Your task to perform on an android device: Search for the best rated lawnmower on Lowes.com Image 0: 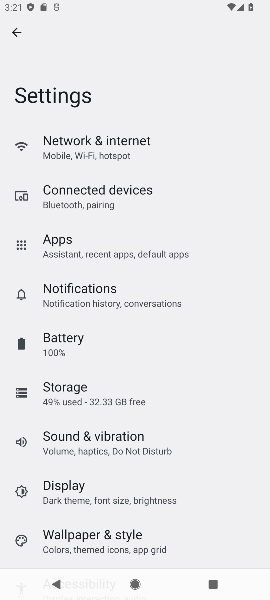
Step 0: press home button
Your task to perform on an android device: Search for the best rated lawnmower on Lowes.com Image 1: 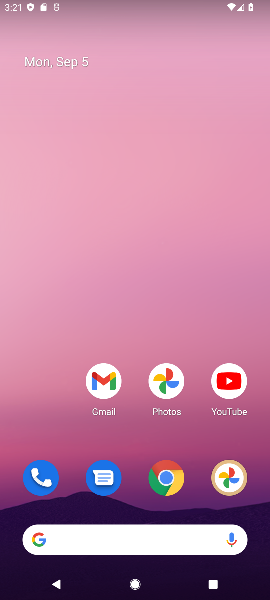
Step 1: click (165, 483)
Your task to perform on an android device: Search for the best rated lawnmower on Lowes.com Image 2: 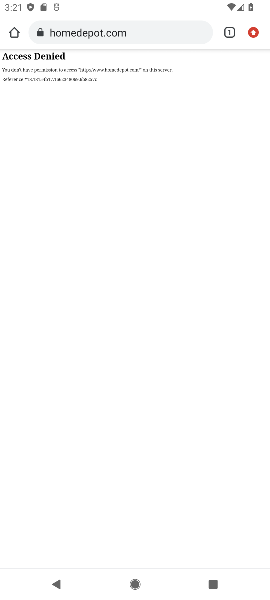
Step 2: click (149, 35)
Your task to perform on an android device: Search for the best rated lawnmower on Lowes.com Image 3: 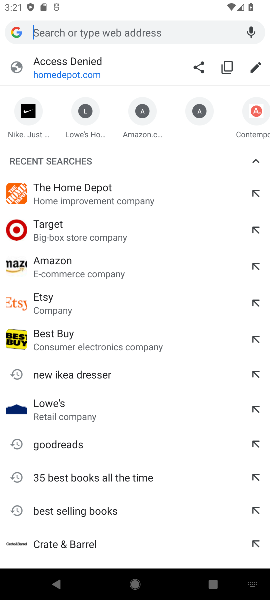
Step 3: type "Lowes.com"
Your task to perform on an android device: Search for the best rated lawnmower on Lowes.com Image 4: 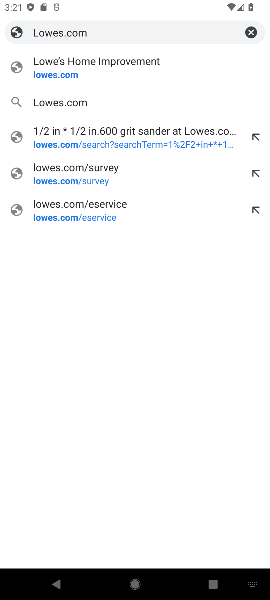
Step 4: click (105, 64)
Your task to perform on an android device: Search for the best rated lawnmower on Lowes.com Image 5: 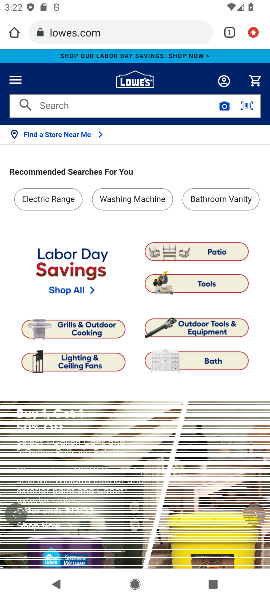
Step 5: click (102, 107)
Your task to perform on an android device: Search for the best rated lawnmower on Lowes.com Image 6: 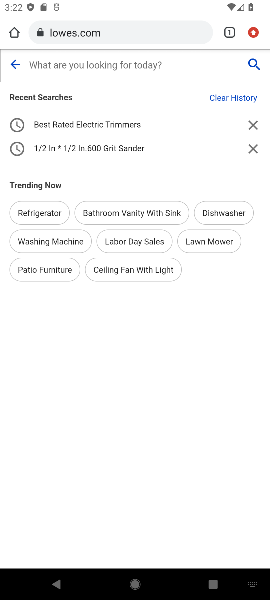
Step 6: type "lbest rated awnmover"
Your task to perform on an android device: Search for the best rated lawnmower on Lowes.com Image 7: 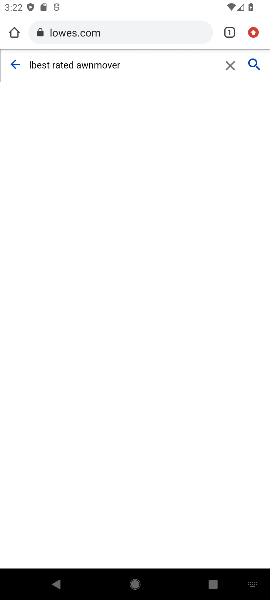
Step 7: click (254, 61)
Your task to perform on an android device: Search for the best rated lawnmower on Lowes.com Image 8: 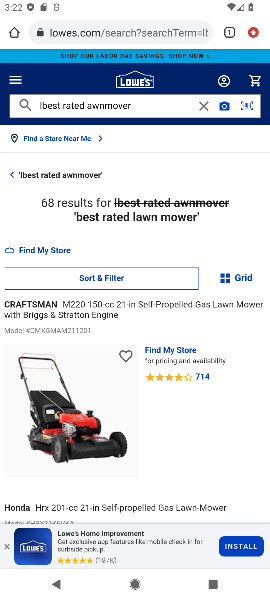
Step 8: task complete